Your task to perform on an android device: Open settings Image 0: 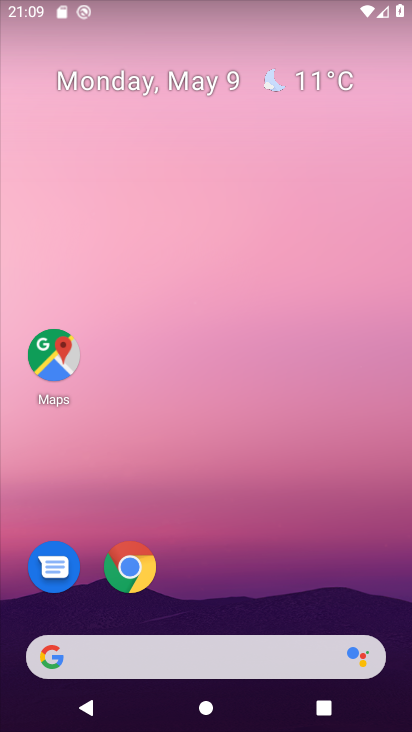
Step 0: drag from (236, 549) to (277, 73)
Your task to perform on an android device: Open settings Image 1: 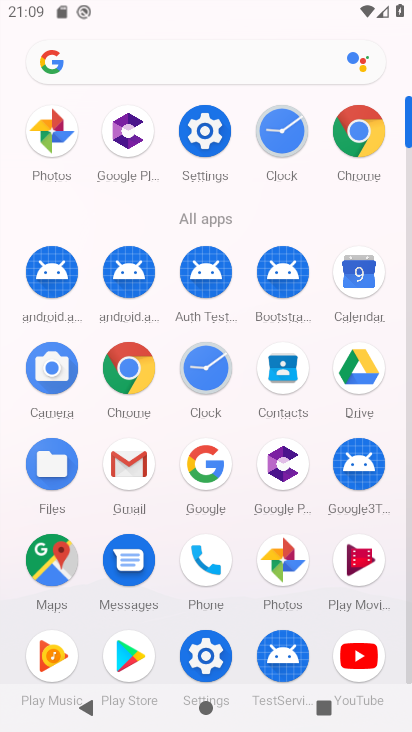
Step 1: click (217, 137)
Your task to perform on an android device: Open settings Image 2: 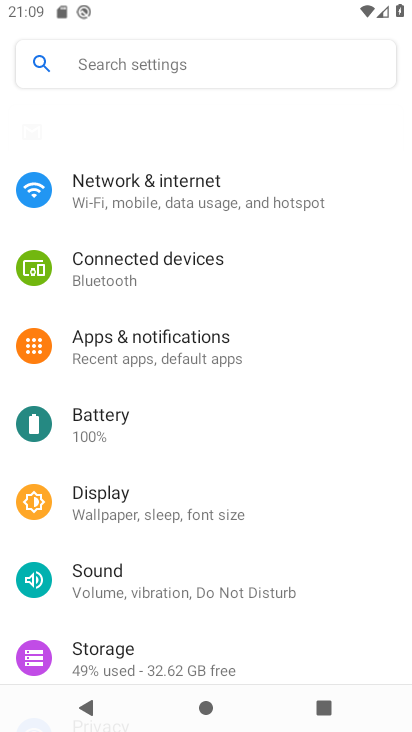
Step 2: task complete